Your task to perform on an android device: Open calendar and show me the fourth week of next month Image 0: 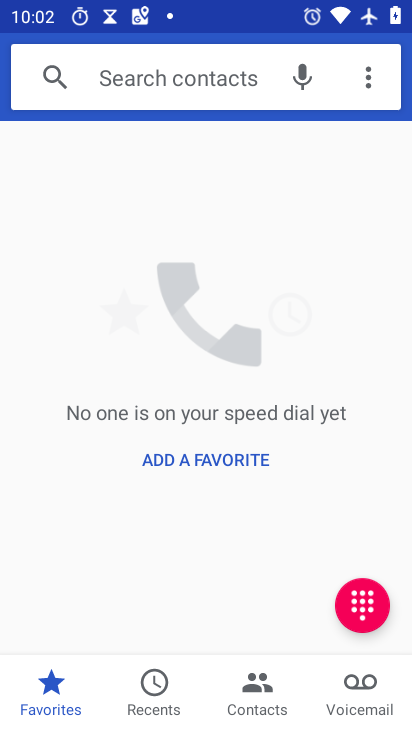
Step 0: press home button
Your task to perform on an android device: Open calendar and show me the fourth week of next month Image 1: 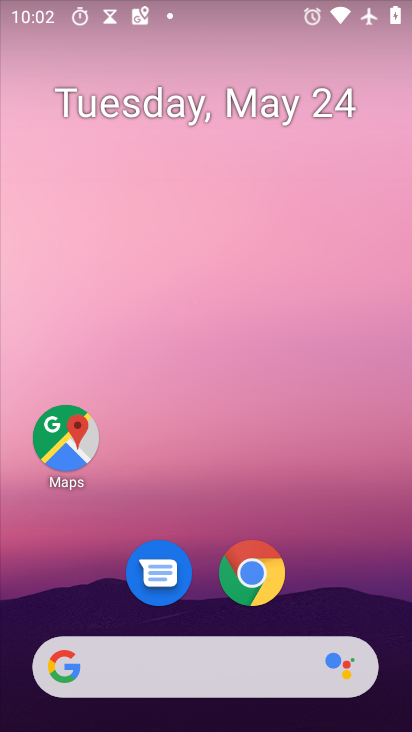
Step 1: drag from (351, 581) to (385, 4)
Your task to perform on an android device: Open calendar and show me the fourth week of next month Image 2: 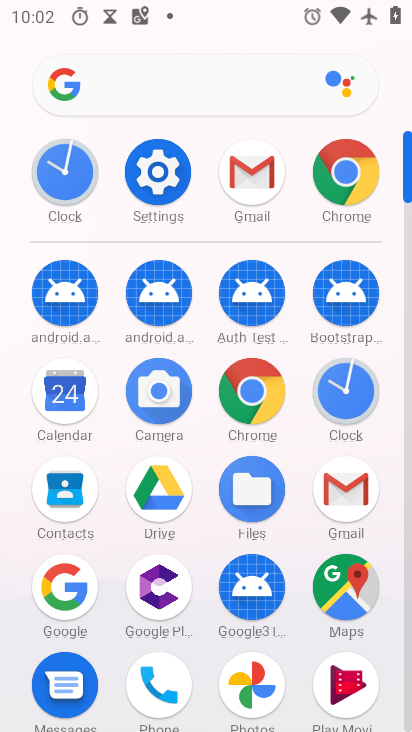
Step 2: click (62, 408)
Your task to perform on an android device: Open calendar and show me the fourth week of next month Image 3: 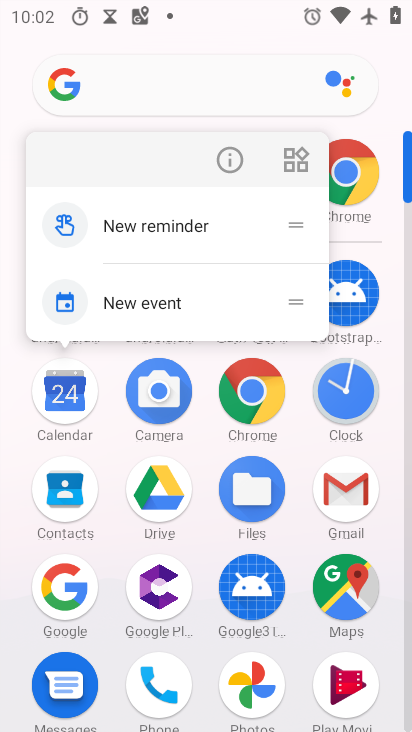
Step 3: click (62, 406)
Your task to perform on an android device: Open calendar and show me the fourth week of next month Image 4: 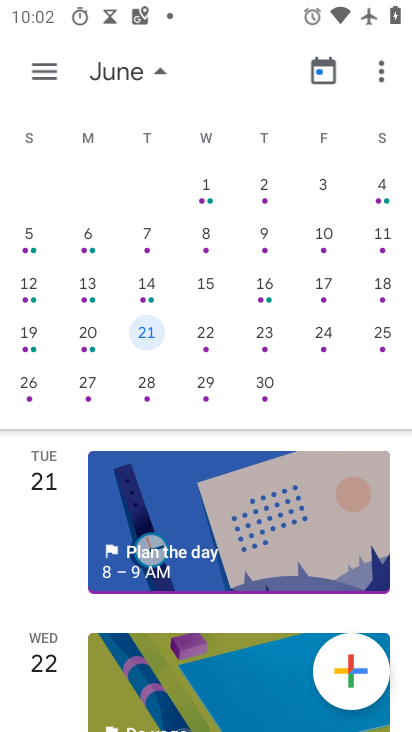
Step 4: drag from (285, 296) to (69, 179)
Your task to perform on an android device: Open calendar and show me the fourth week of next month Image 5: 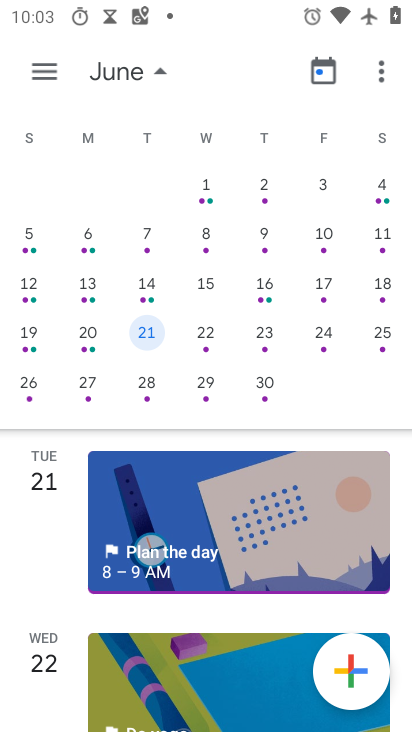
Step 5: click (152, 389)
Your task to perform on an android device: Open calendar and show me the fourth week of next month Image 6: 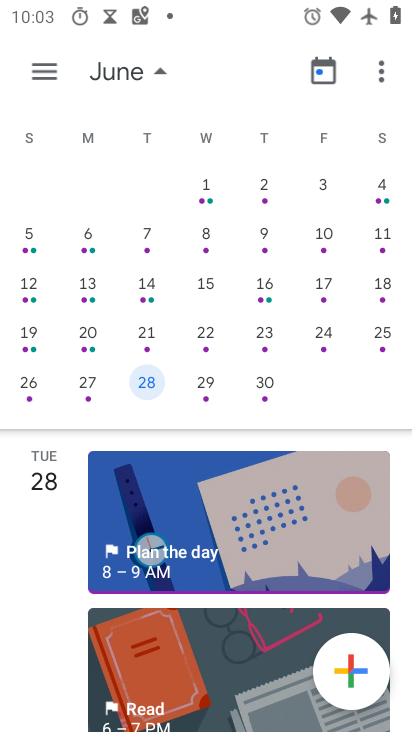
Step 6: task complete